Your task to perform on an android device: turn on the 12-hour format for clock Image 0: 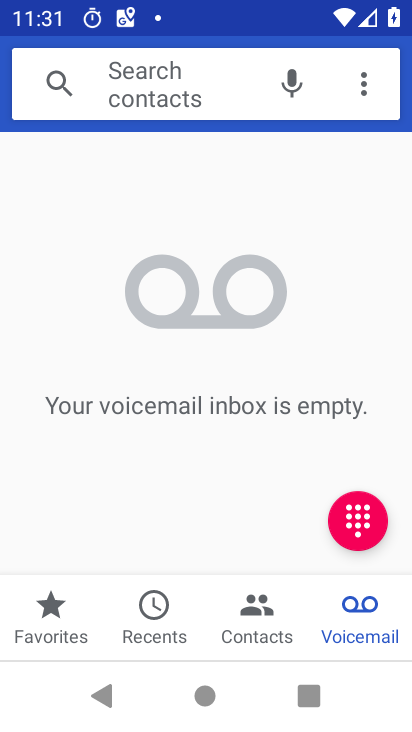
Step 0: press home button
Your task to perform on an android device: turn on the 12-hour format for clock Image 1: 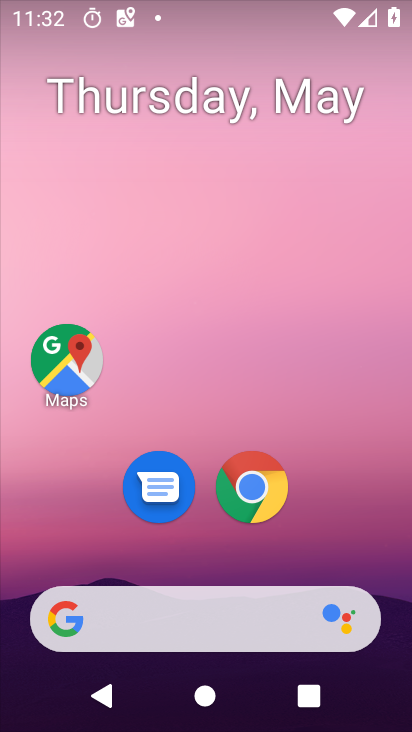
Step 1: drag from (341, 548) to (343, 136)
Your task to perform on an android device: turn on the 12-hour format for clock Image 2: 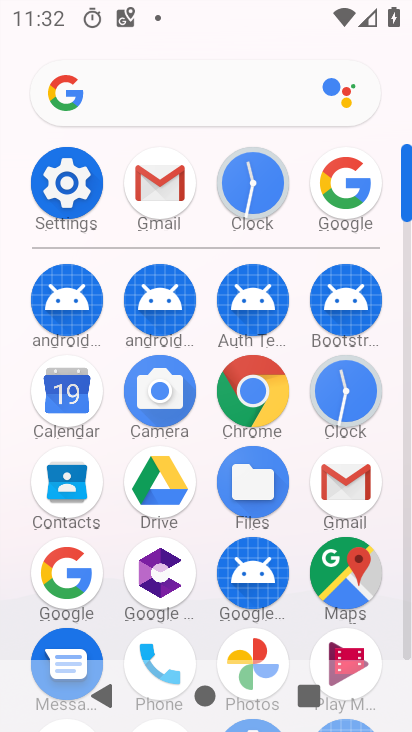
Step 2: click (254, 192)
Your task to perform on an android device: turn on the 12-hour format for clock Image 3: 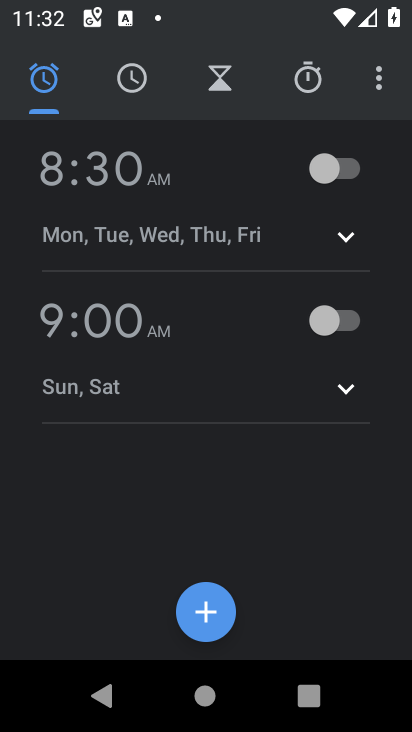
Step 3: click (381, 85)
Your task to perform on an android device: turn on the 12-hour format for clock Image 4: 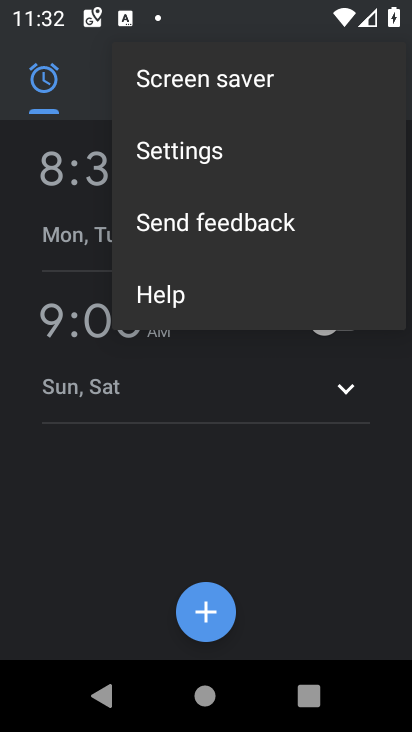
Step 4: click (210, 151)
Your task to perform on an android device: turn on the 12-hour format for clock Image 5: 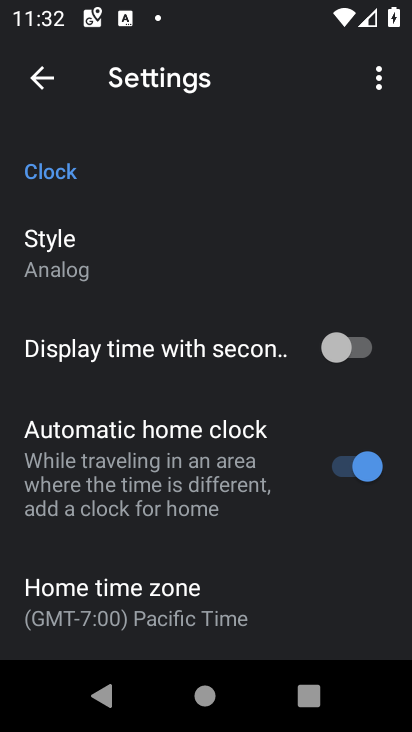
Step 5: drag from (259, 591) to (235, 231)
Your task to perform on an android device: turn on the 12-hour format for clock Image 6: 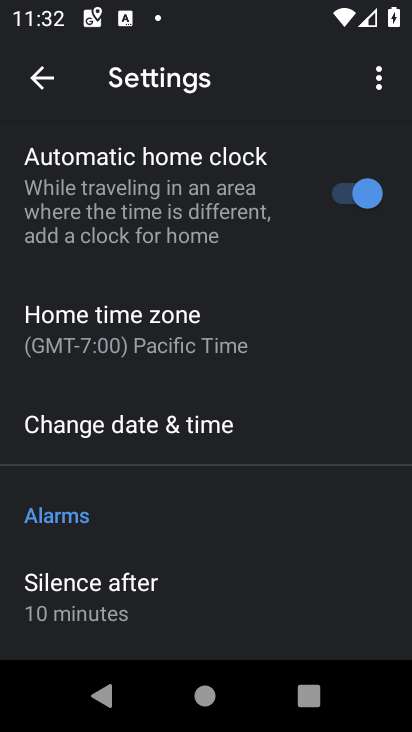
Step 6: click (216, 420)
Your task to perform on an android device: turn on the 12-hour format for clock Image 7: 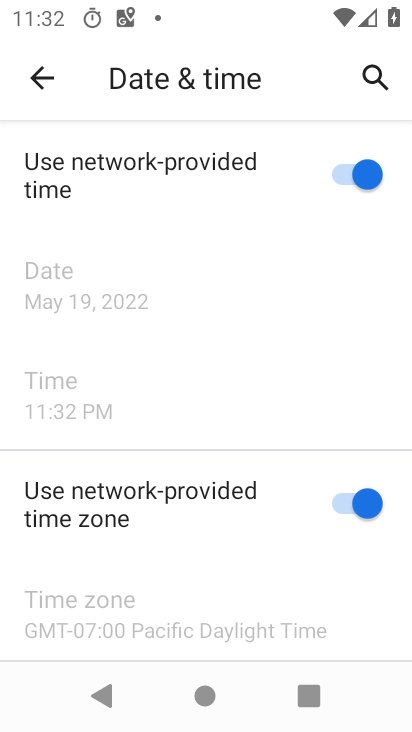
Step 7: task complete